Your task to perform on an android device: See recent photos Image 0: 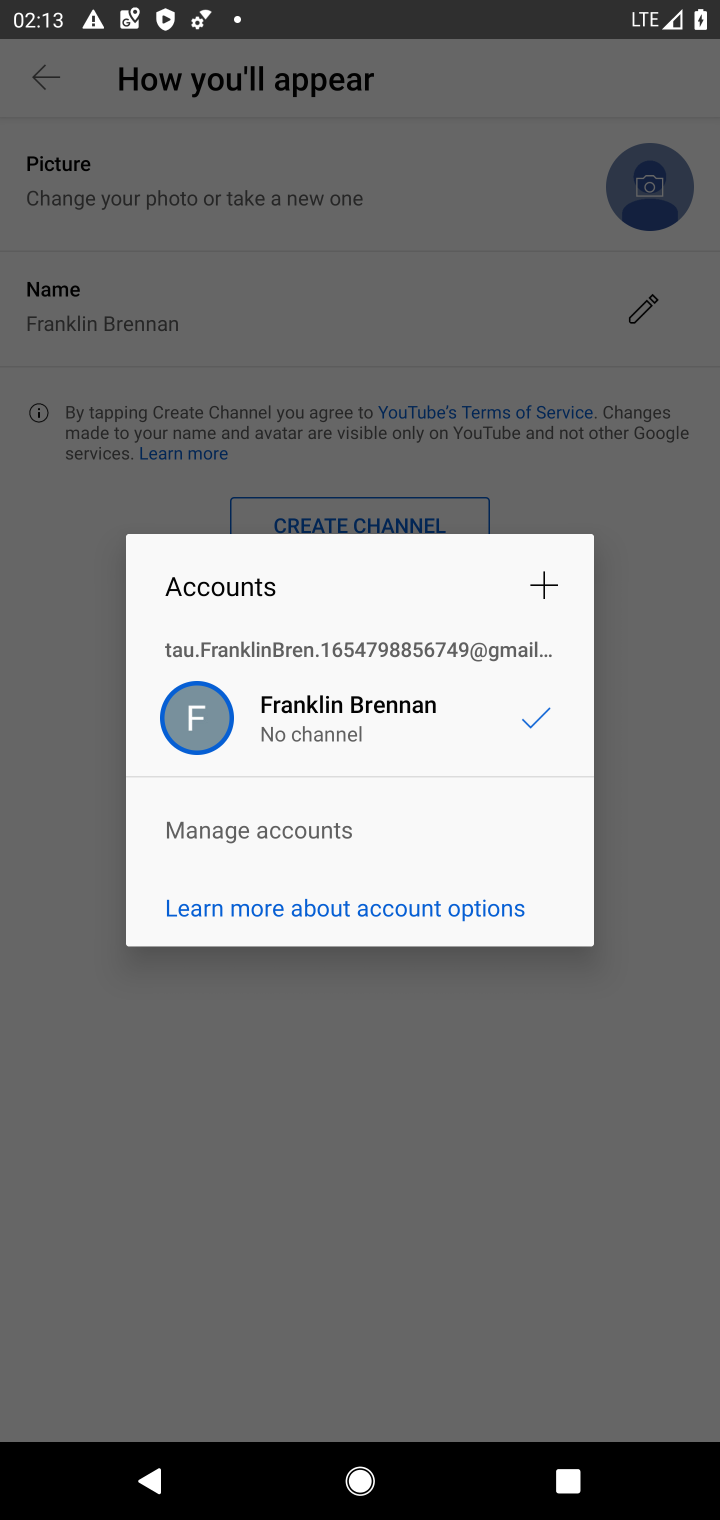
Step 0: click (377, 719)
Your task to perform on an android device: See recent photos Image 1: 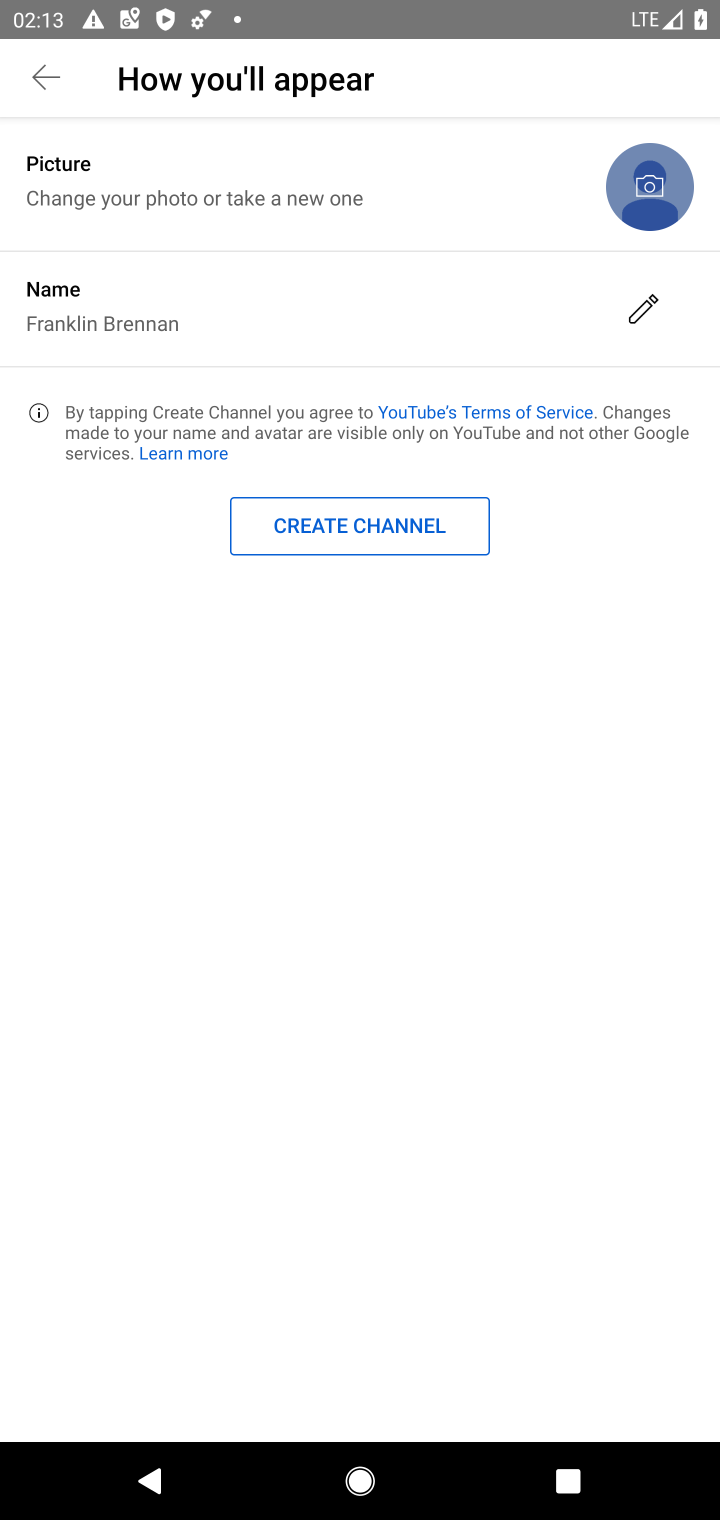
Step 1: press home button
Your task to perform on an android device: See recent photos Image 2: 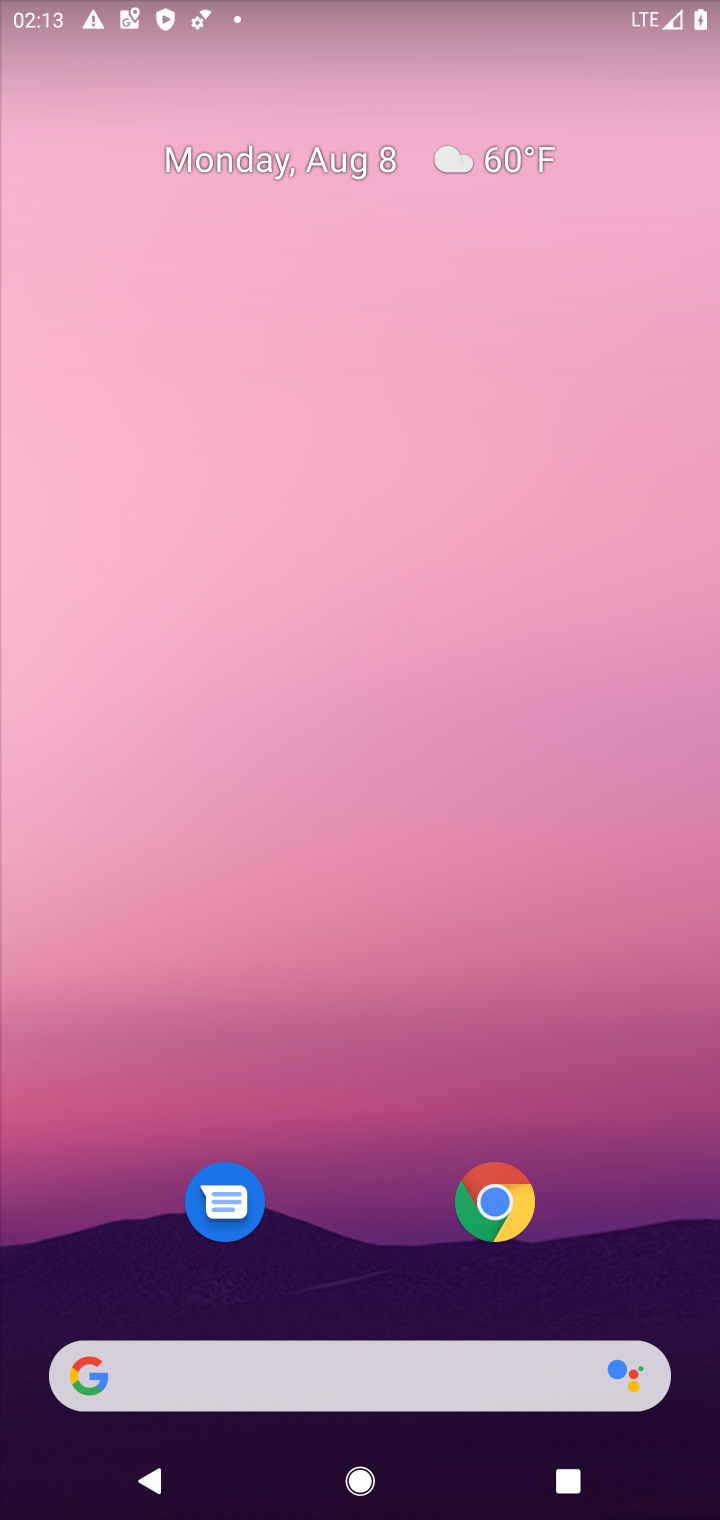
Step 2: drag from (353, 85) to (360, 248)
Your task to perform on an android device: See recent photos Image 3: 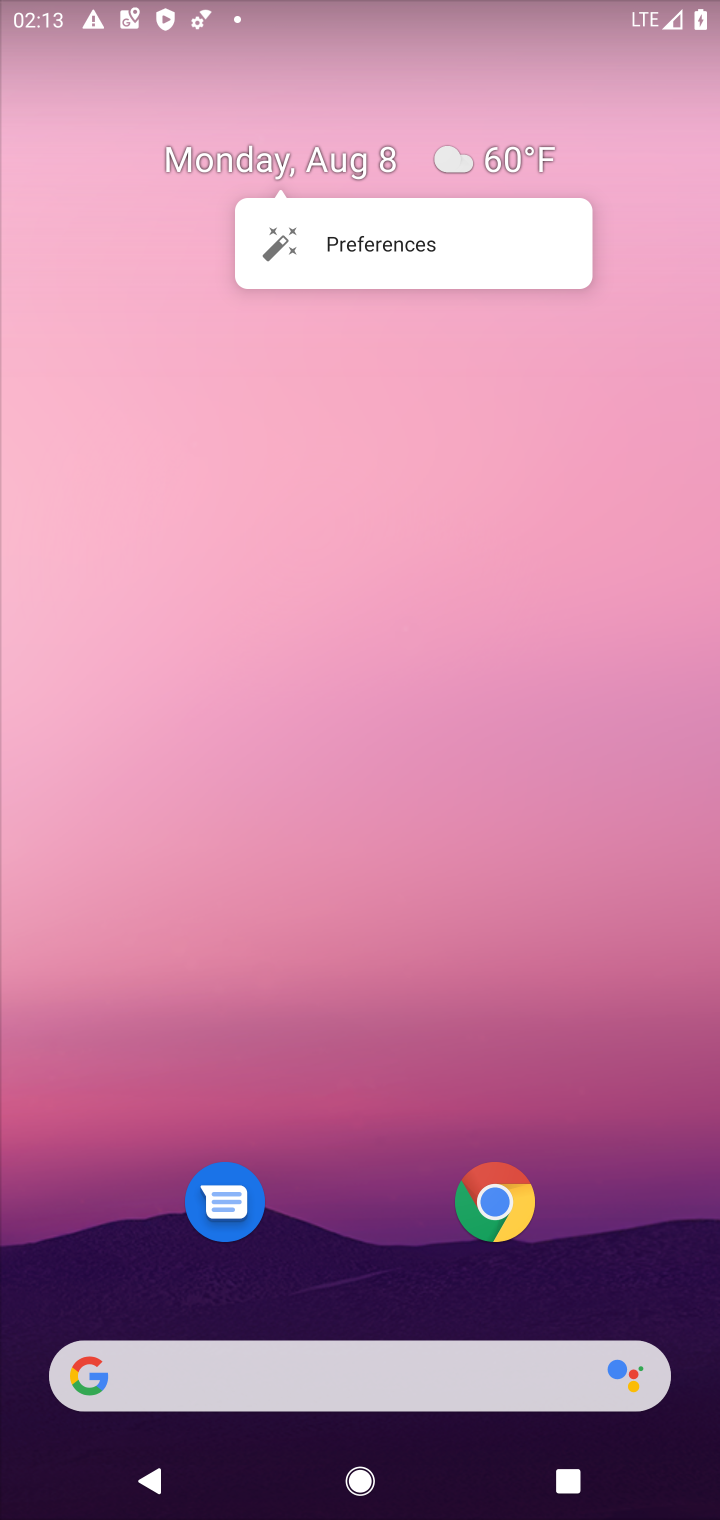
Step 3: click (387, 290)
Your task to perform on an android device: See recent photos Image 4: 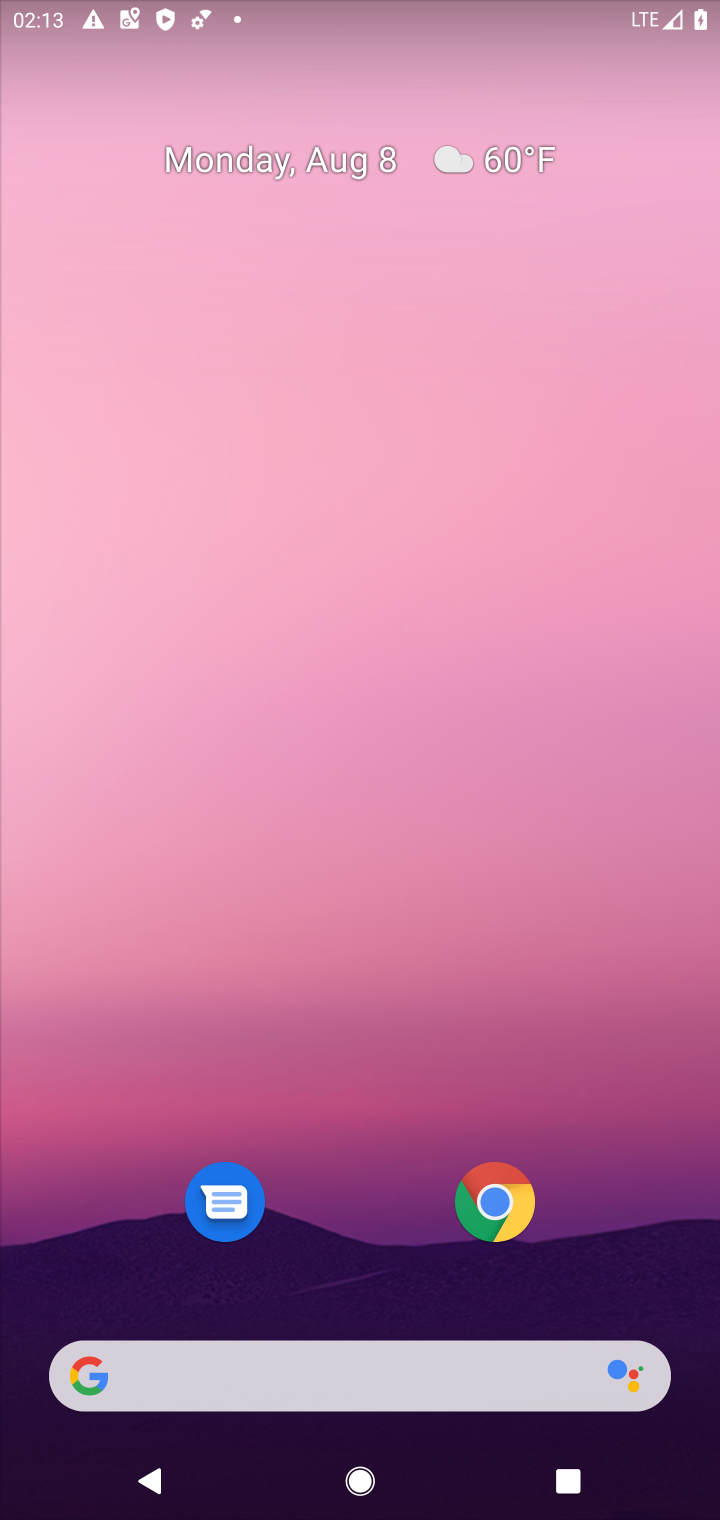
Step 4: click (351, 344)
Your task to perform on an android device: See recent photos Image 5: 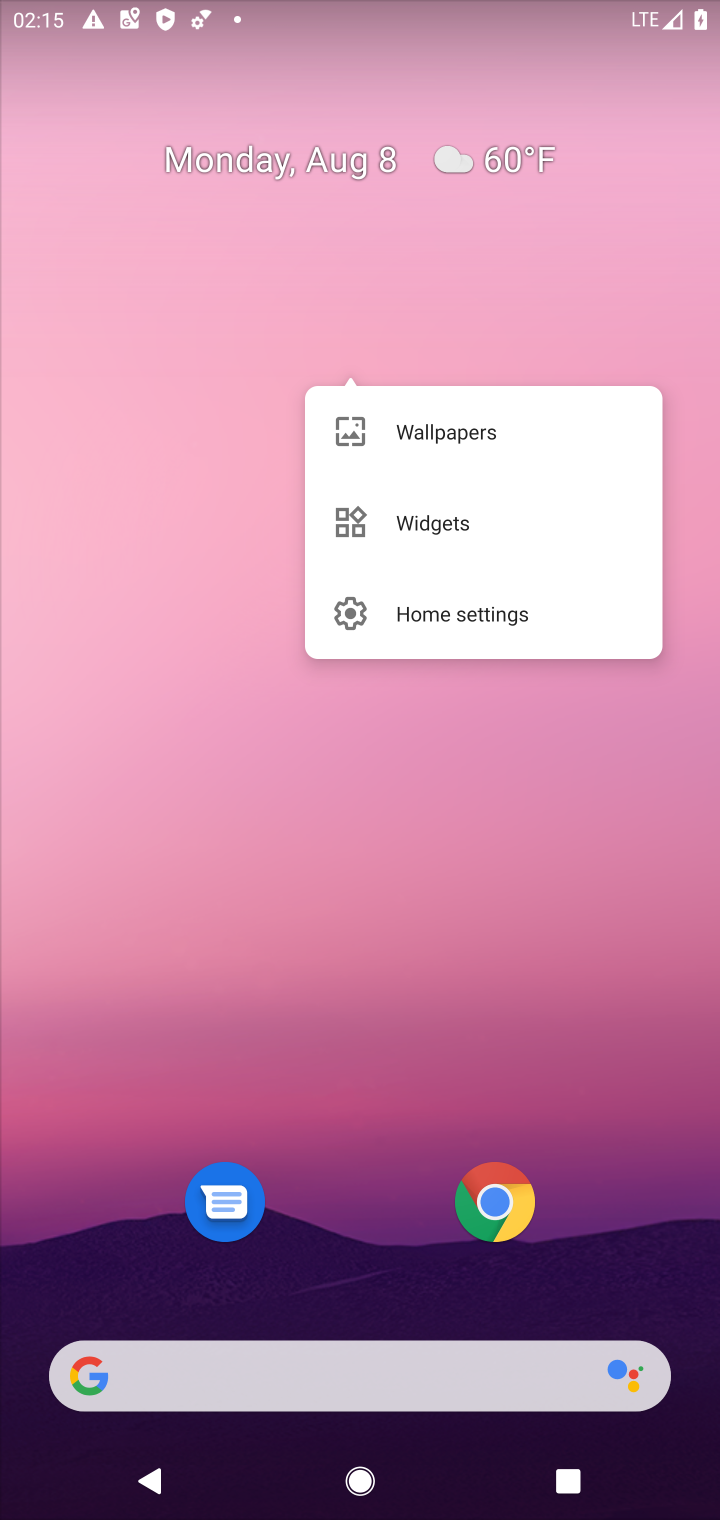
Step 5: drag from (391, 411) to (477, 33)
Your task to perform on an android device: See recent photos Image 6: 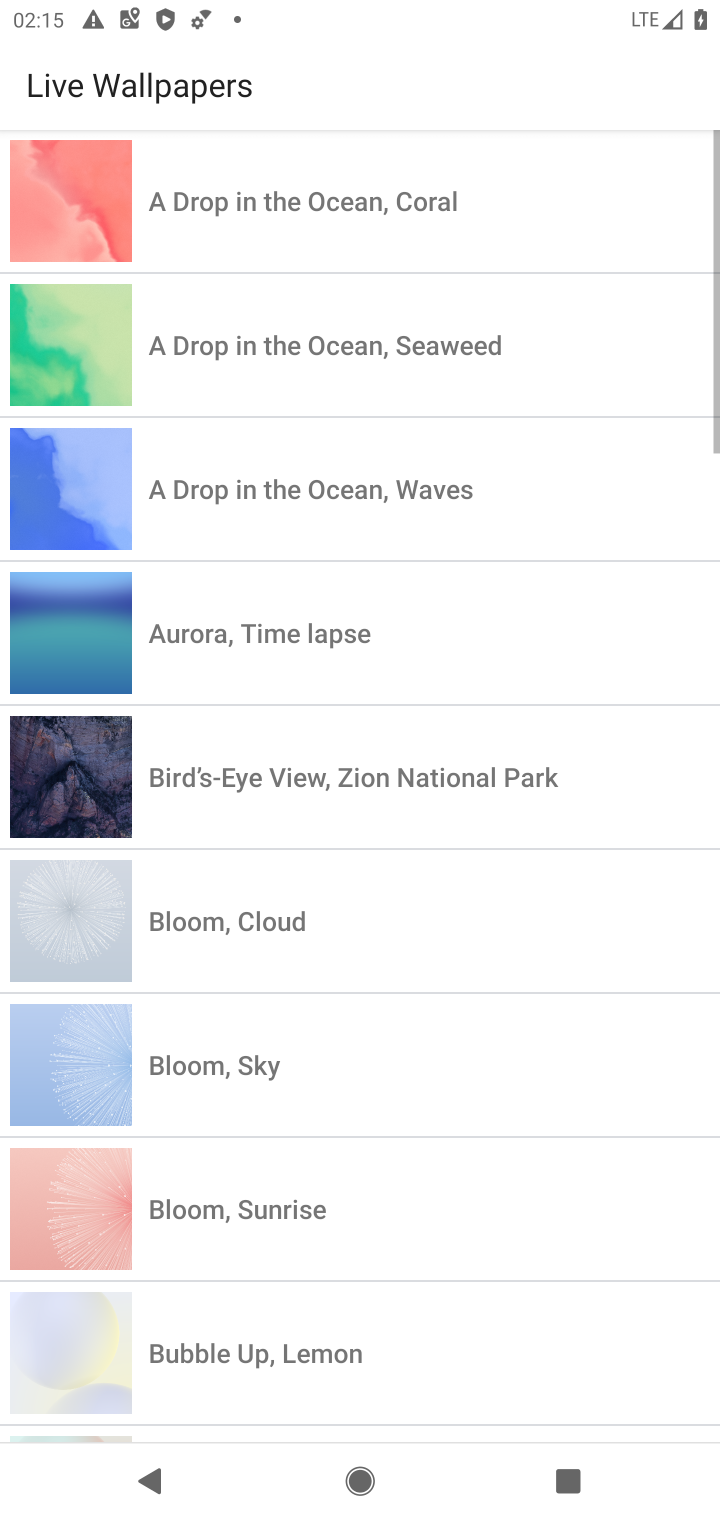
Step 6: press home button
Your task to perform on an android device: See recent photos Image 7: 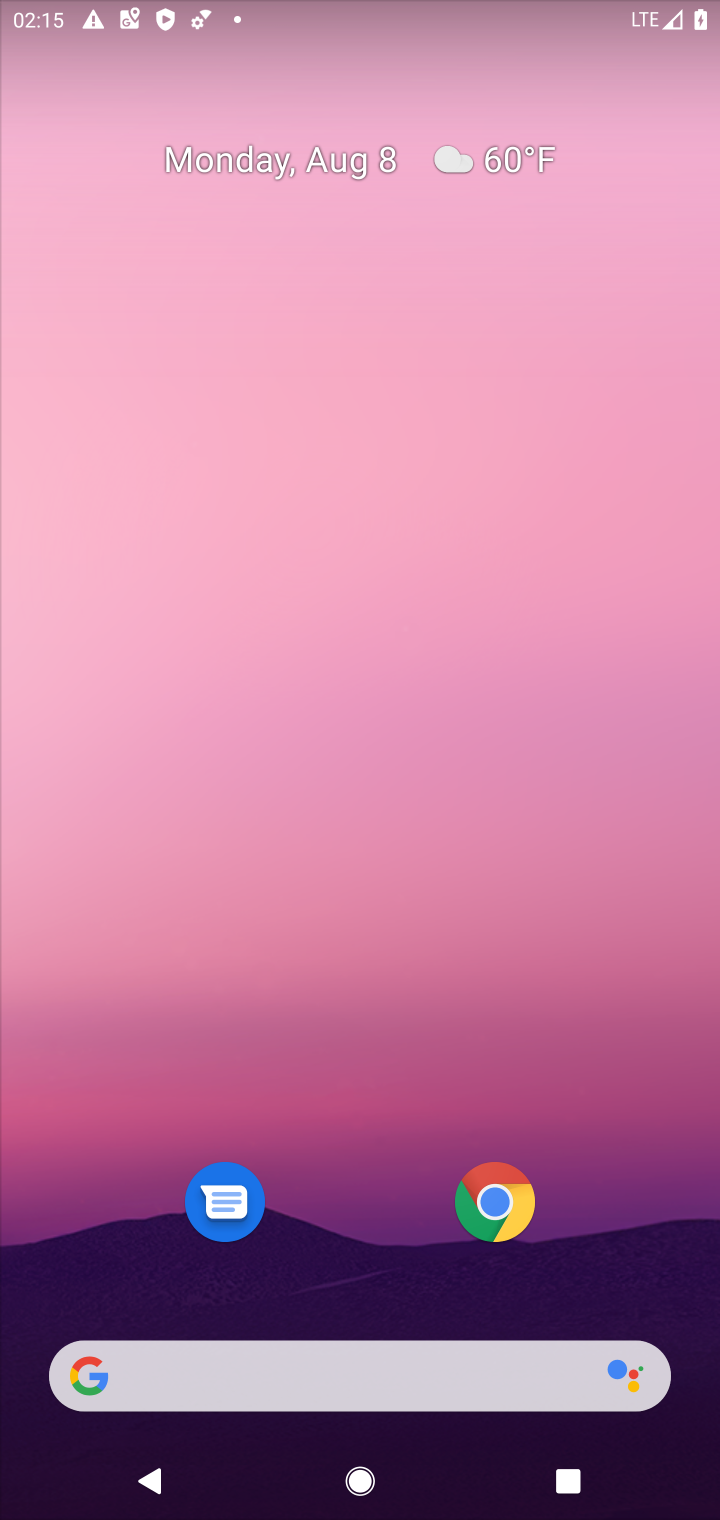
Step 7: drag from (341, 40) to (370, 214)
Your task to perform on an android device: See recent photos Image 8: 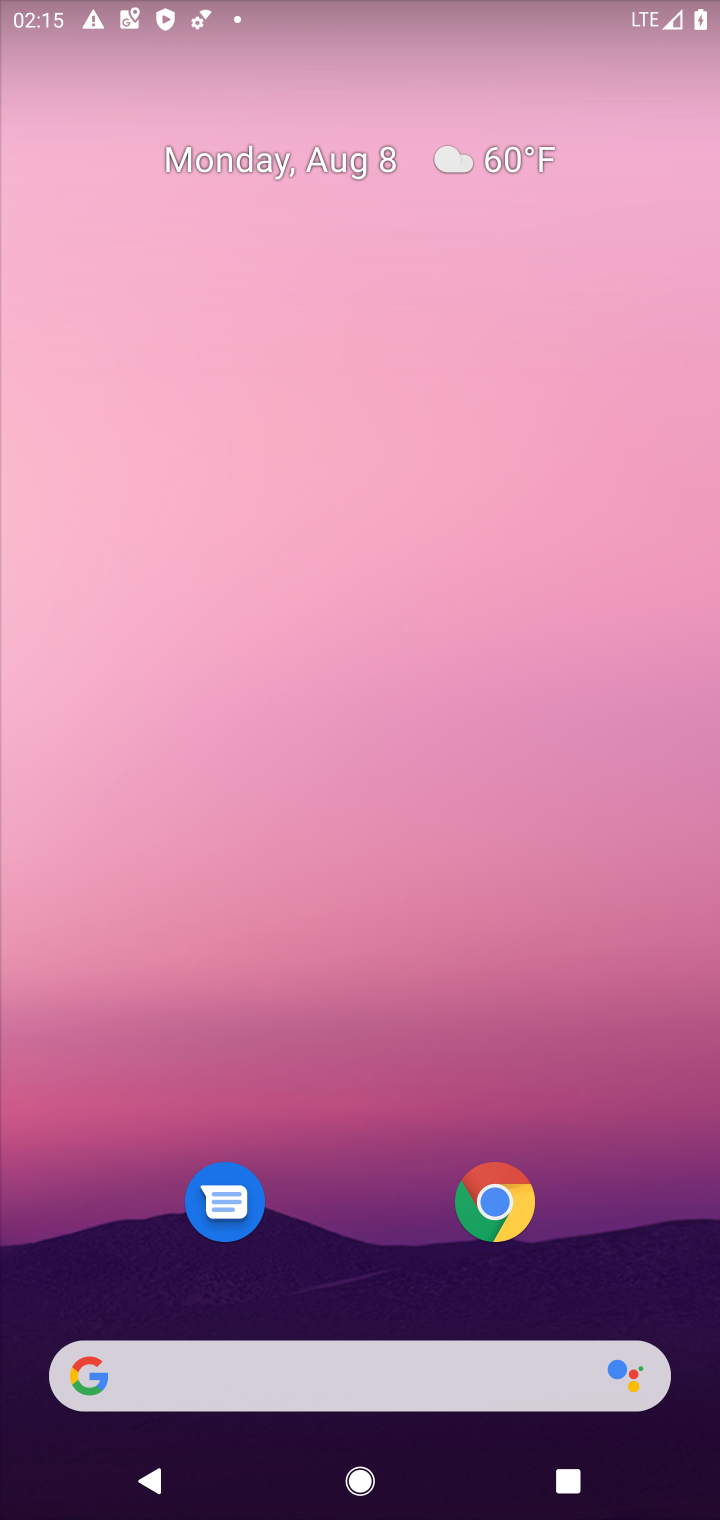
Step 8: drag from (368, 1059) to (421, 70)
Your task to perform on an android device: See recent photos Image 9: 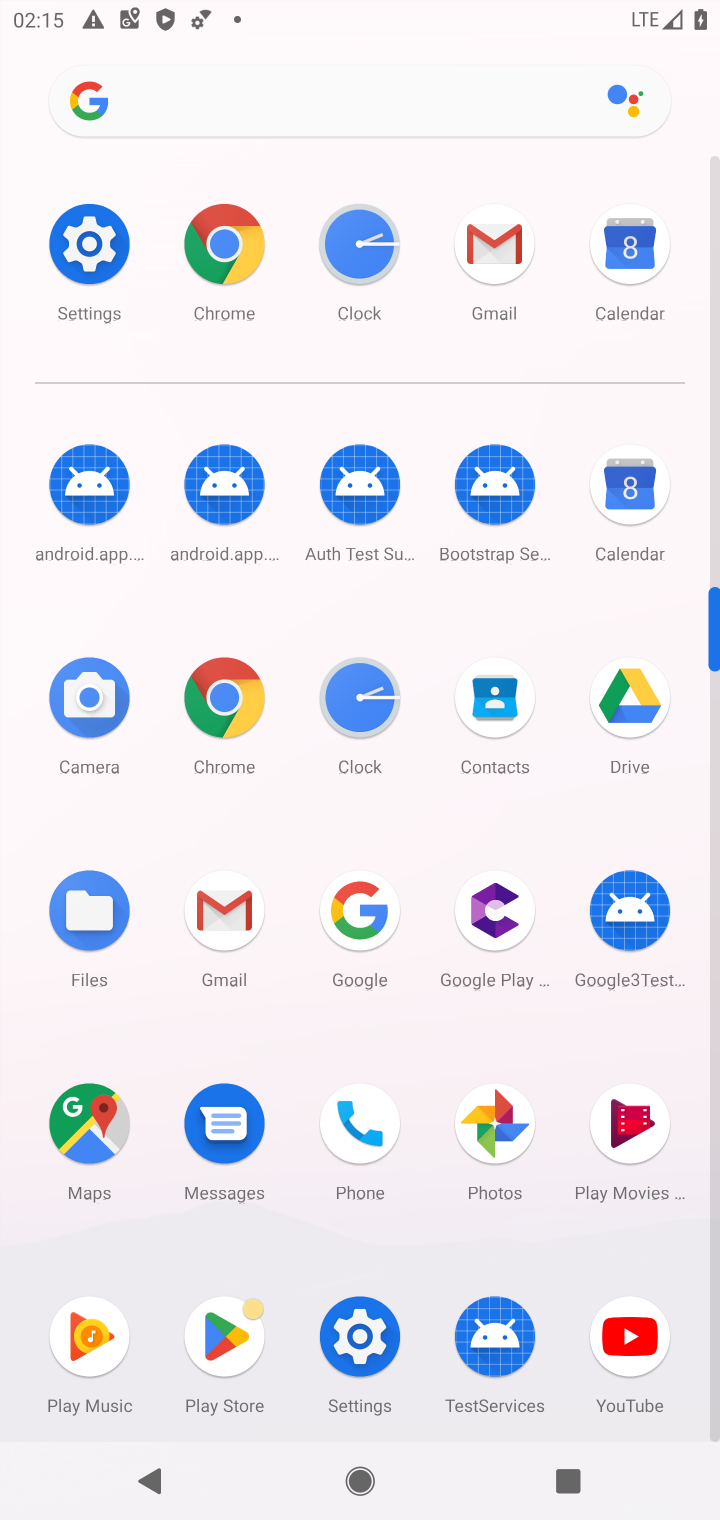
Step 9: click (489, 1117)
Your task to perform on an android device: See recent photos Image 10: 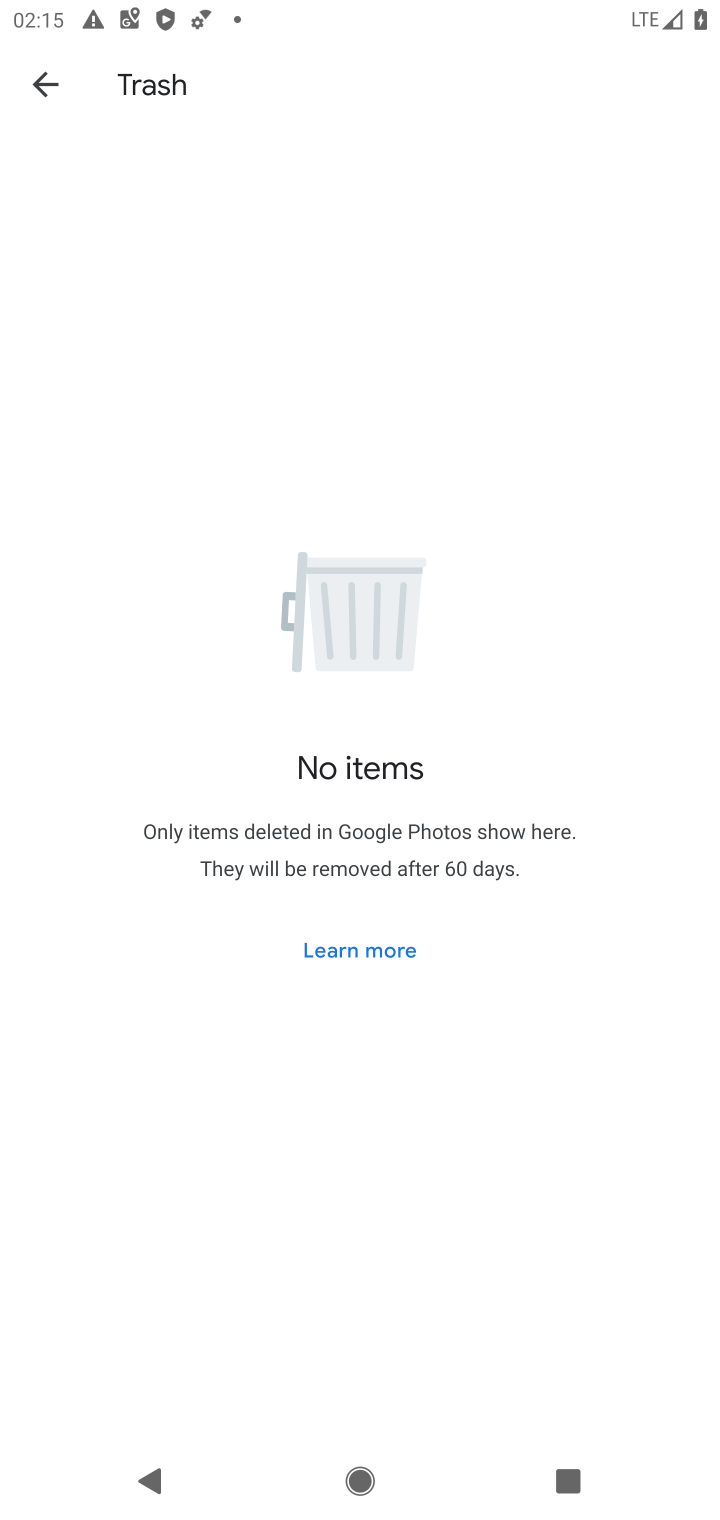
Step 10: click (37, 79)
Your task to perform on an android device: See recent photos Image 11: 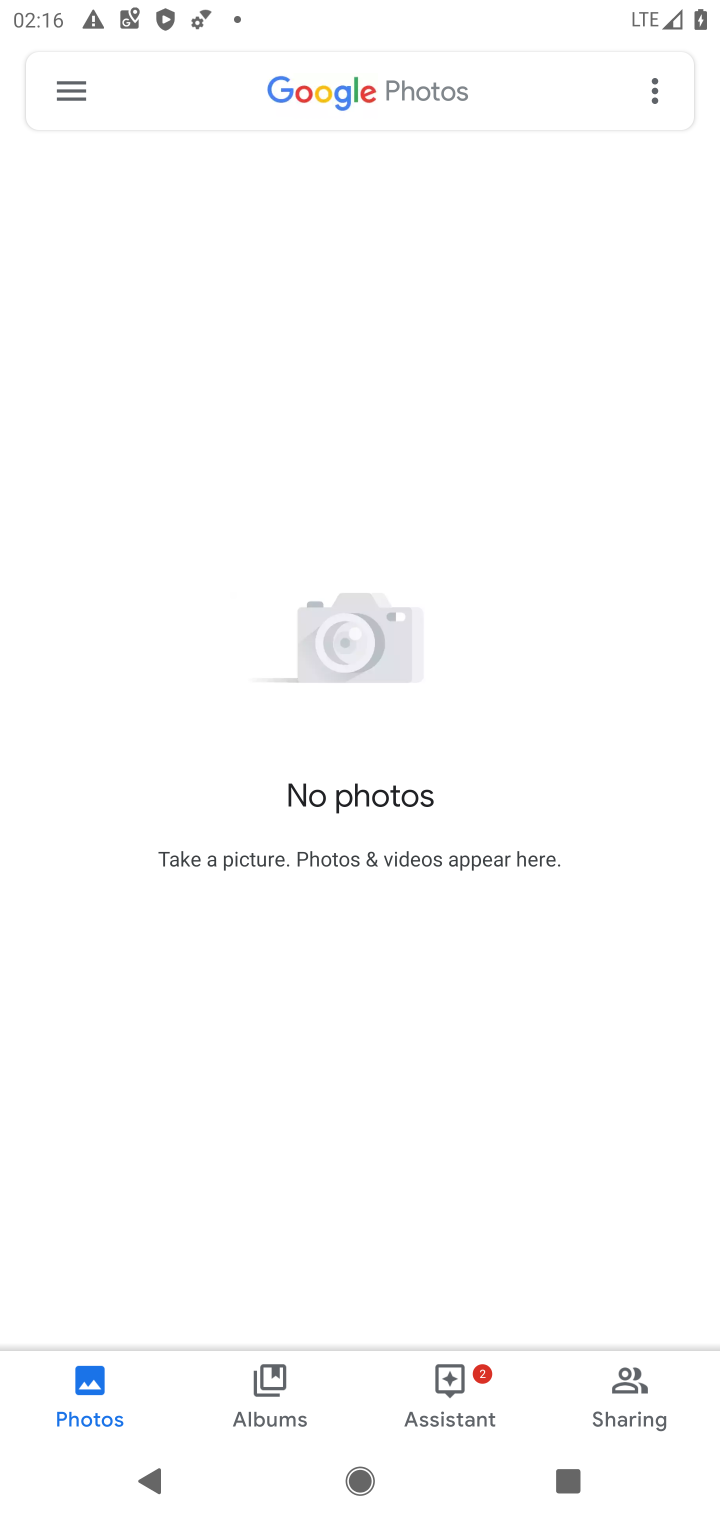
Step 11: task complete